Your task to perform on an android device: Open maps Image 0: 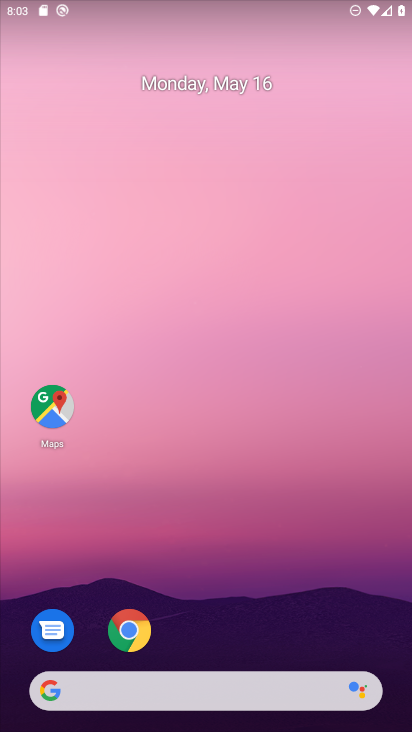
Step 0: click (22, 413)
Your task to perform on an android device: Open maps Image 1: 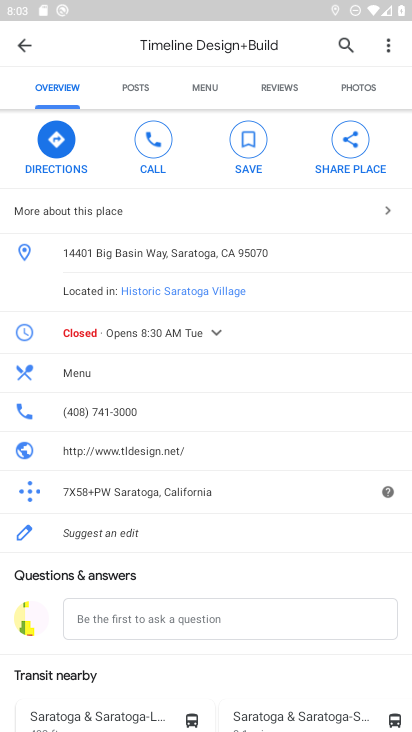
Step 1: task complete